Your task to perform on an android device: turn off location history Image 0: 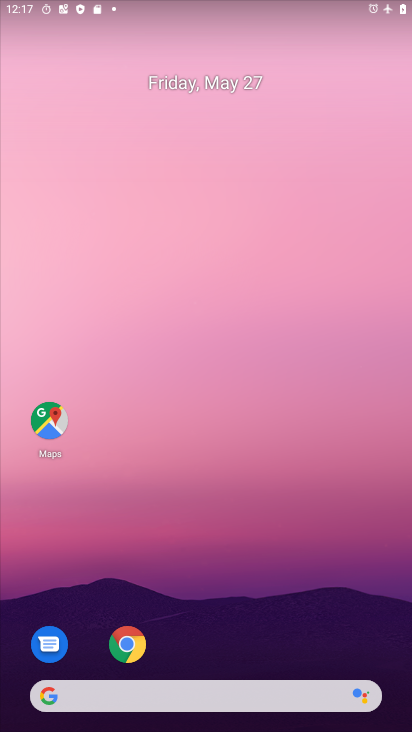
Step 0: drag from (210, 650) to (214, 218)
Your task to perform on an android device: turn off location history Image 1: 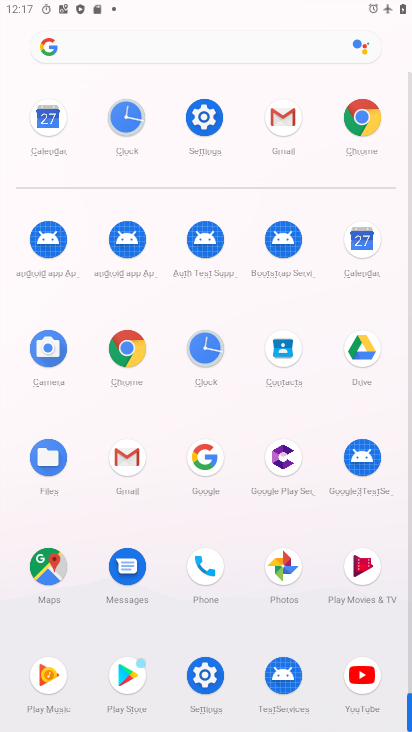
Step 1: click (211, 128)
Your task to perform on an android device: turn off location history Image 2: 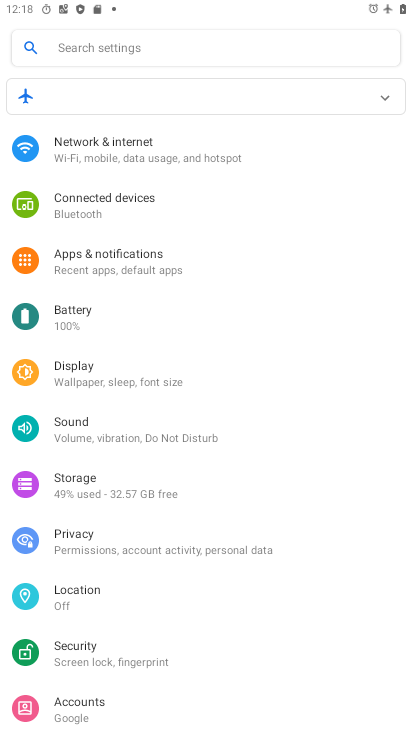
Step 2: click (128, 601)
Your task to perform on an android device: turn off location history Image 3: 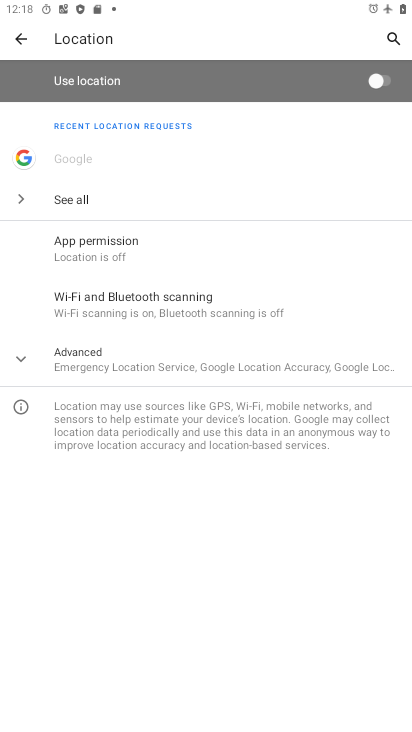
Step 3: click (194, 349)
Your task to perform on an android device: turn off location history Image 4: 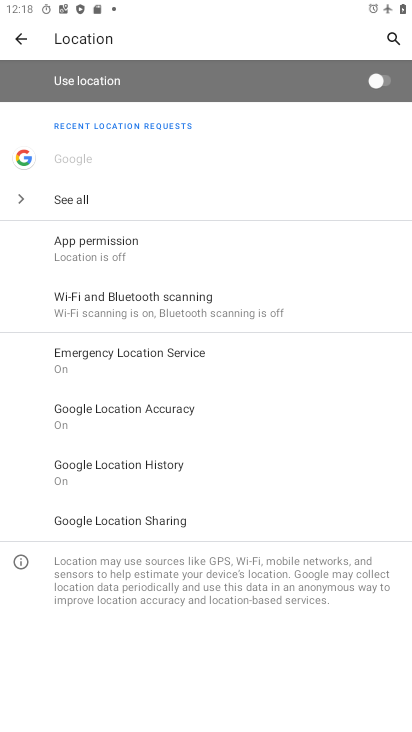
Step 4: drag from (230, 543) to (241, 425)
Your task to perform on an android device: turn off location history Image 5: 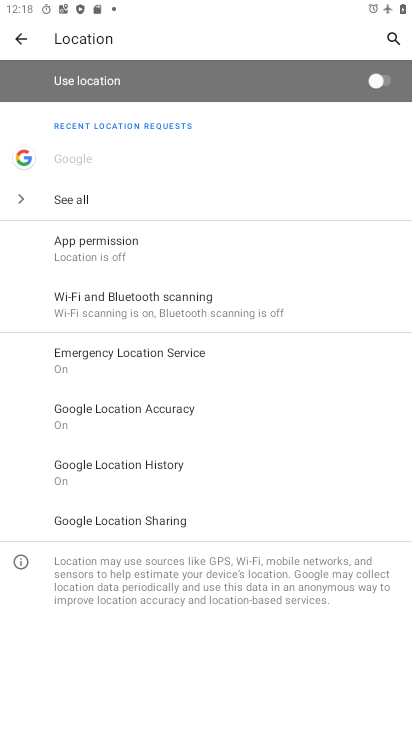
Step 5: click (173, 462)
Your task to perform on an android device: turn off location history Image 6: 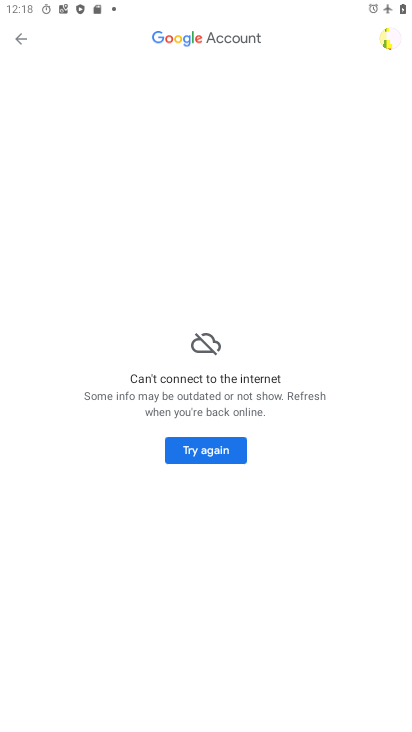
Step 6: task complete